Your task to perform on an android device: turn off sleep mode Image 0: 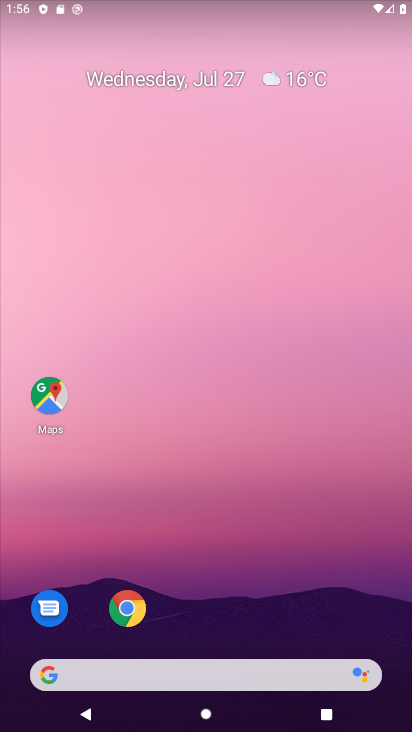
Step 0: drag from (252, 580) to (230, 104)
Your task to perform on an android device: turn off sleep mode Image 1: 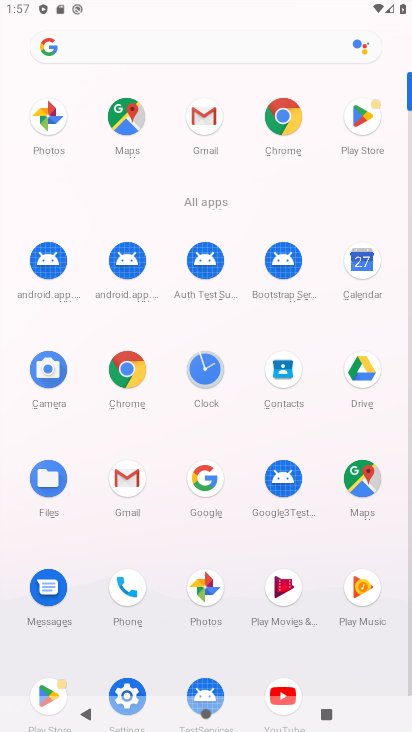
Step 1: click (133, 684)
Your task to perform on an android device: turn off sleep mode Image 2: 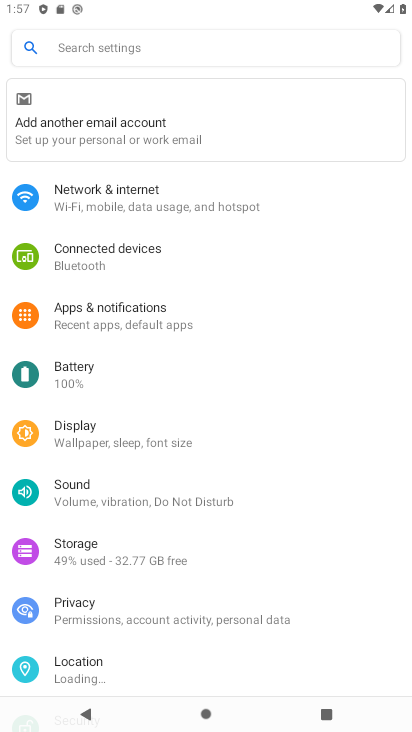
Step 2: task complete